Your task to perform on an android device: Show the shopping cart on target.com. Add dell xps to the cart on target.com, then select checkout. Image 0: 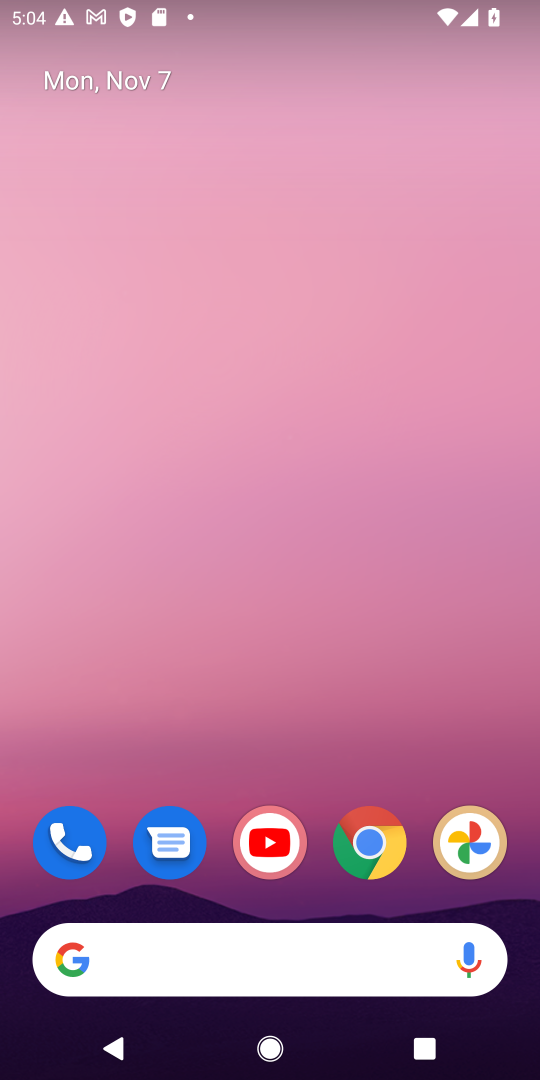
Step 0: drag from (215, 573) to (288, 20)
Your task to perform on an android device: Show the shopping cart on target.com. Add dell xps to the cart on target.com, then select checkout. Image 1: 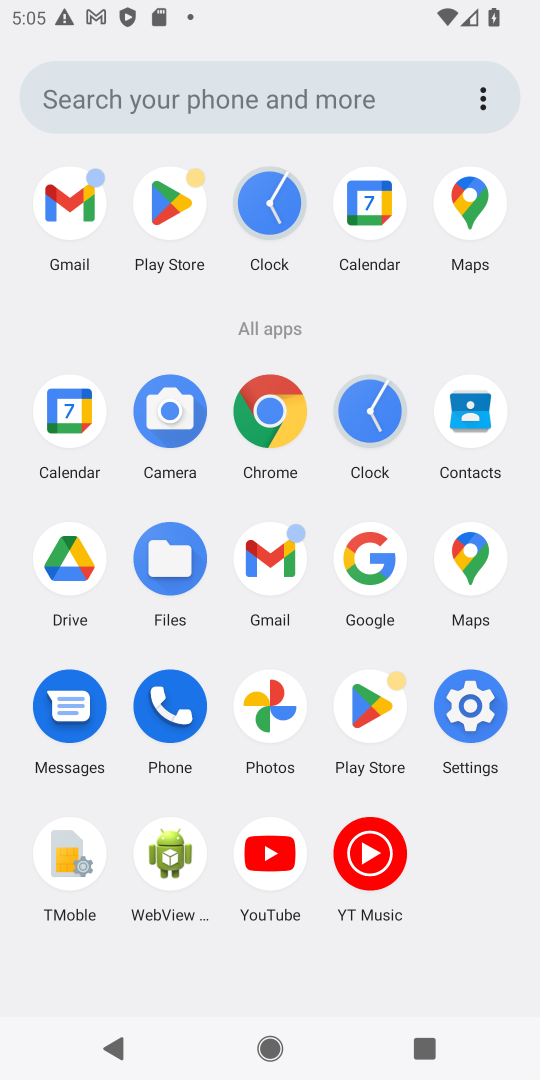
Step 1: click (270, 411)
Your task to perform on an android device: Show the shopping cart on target.com. Add dell xps to the cart on target.com, then select checkout. Image 2: 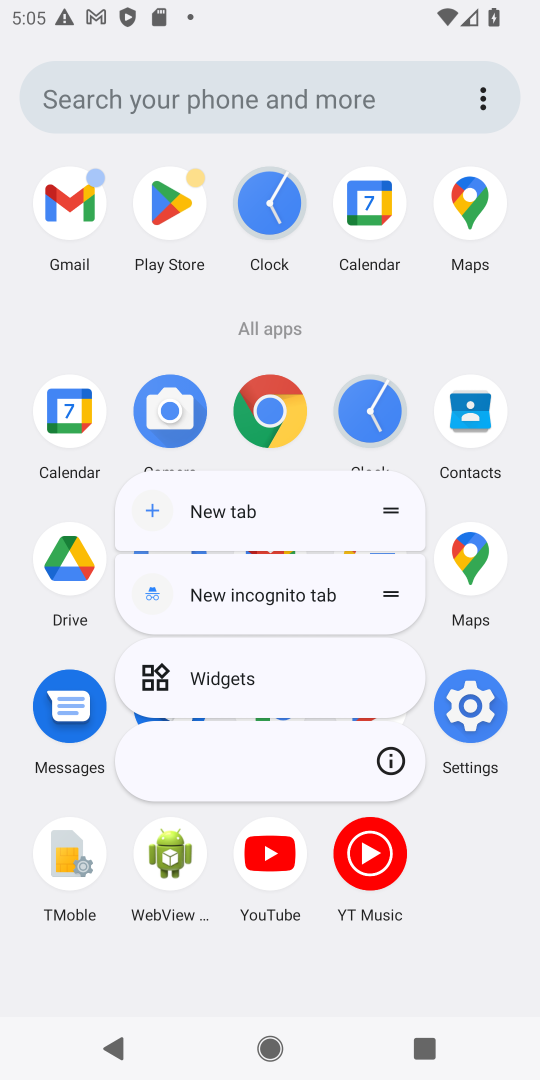
Step 2: click (270, 411)
Your task to perform on an android device: Show the shopping cart on target.com. Add dell xps to the cart on target.com, then select checkout. Image 3: 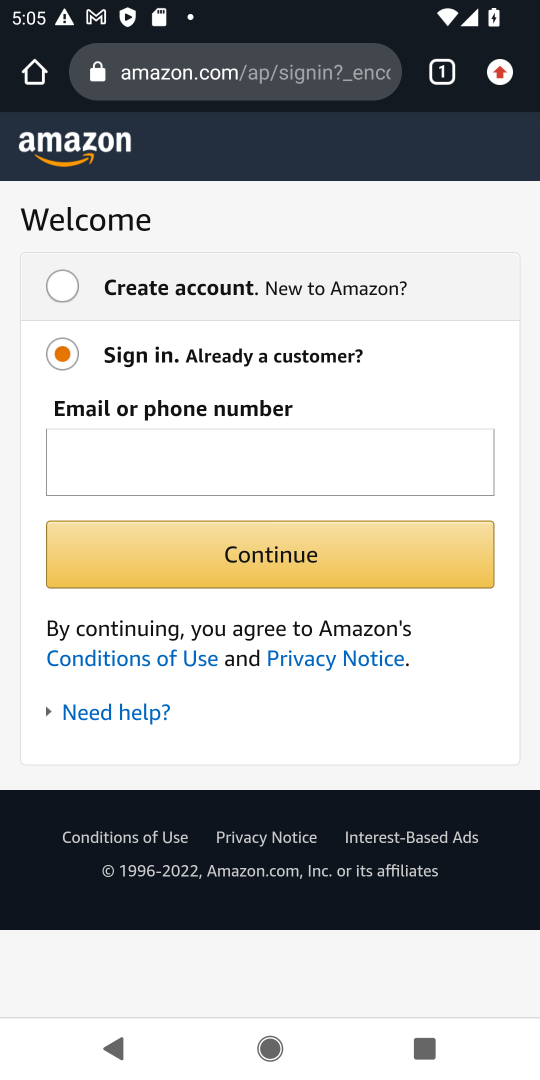
Step 3: click (242, 63)
Your task to perform on an android device: Show the shopping cart on target.com. Add dell xps to the cart on target.com, then select checkout. Image 4: 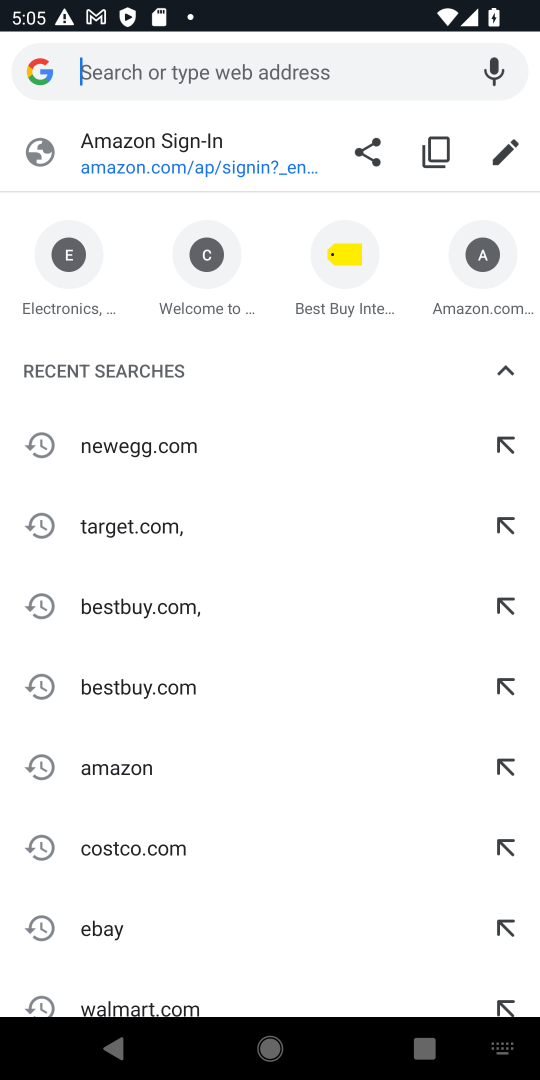
Step 4: type " target.com"
Your task to perform on an android device: Show the shopping cart on target.com. Add dell xps to the cart on target.com, then select checkout. Image 5: 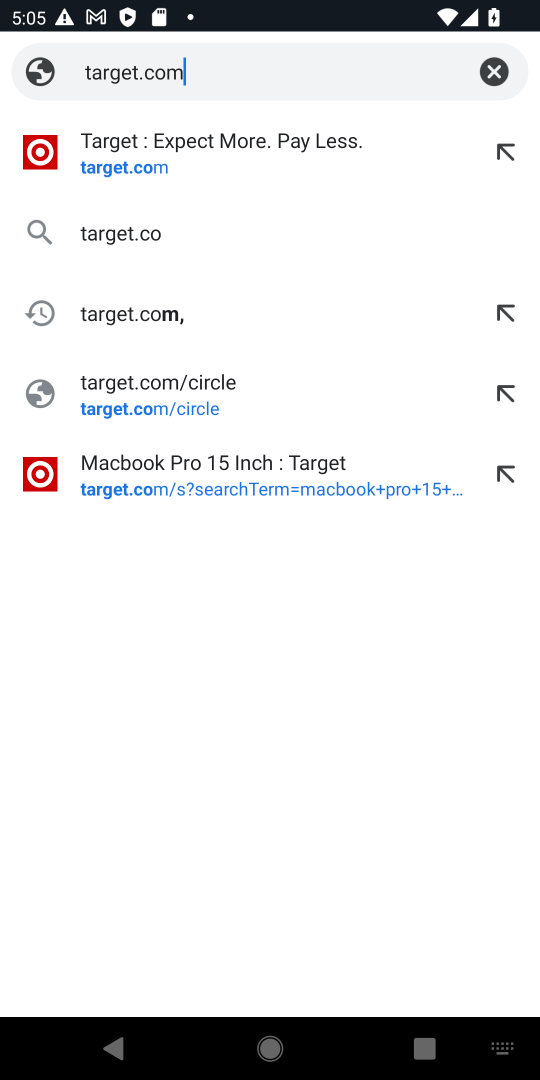
Step 5: press enter
Your task to perform on an android device: Show the shopping cart on target.com. Add dell xps to the cart on target.com, then select checkout. Image 6: 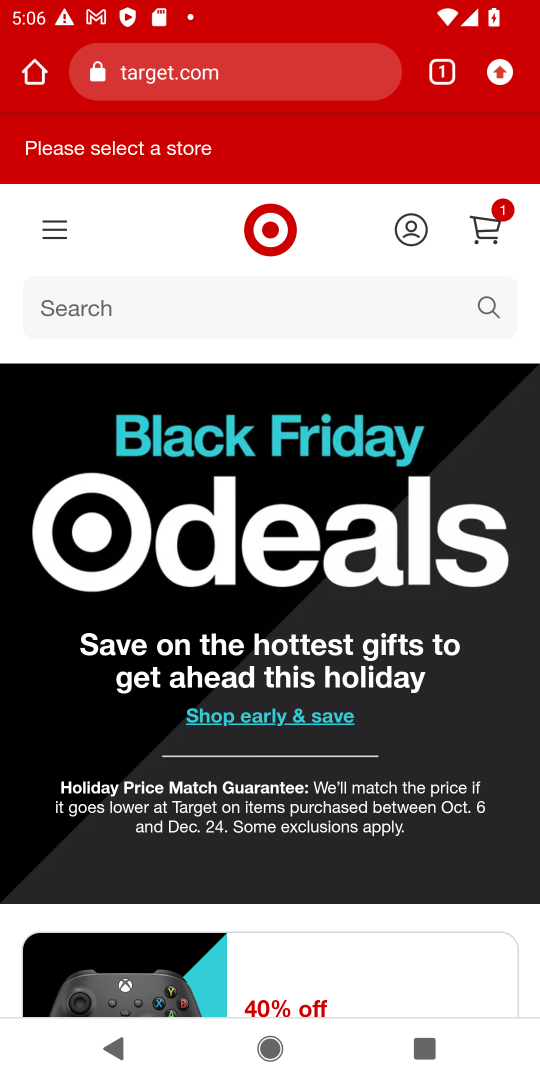
Step 6: drag from (247, 780) to (352, 309)
Your task to perform on an android device: Show the shopping cart on target.com. Add dell xps to the cart on target.com, then select checkout. Image 7: 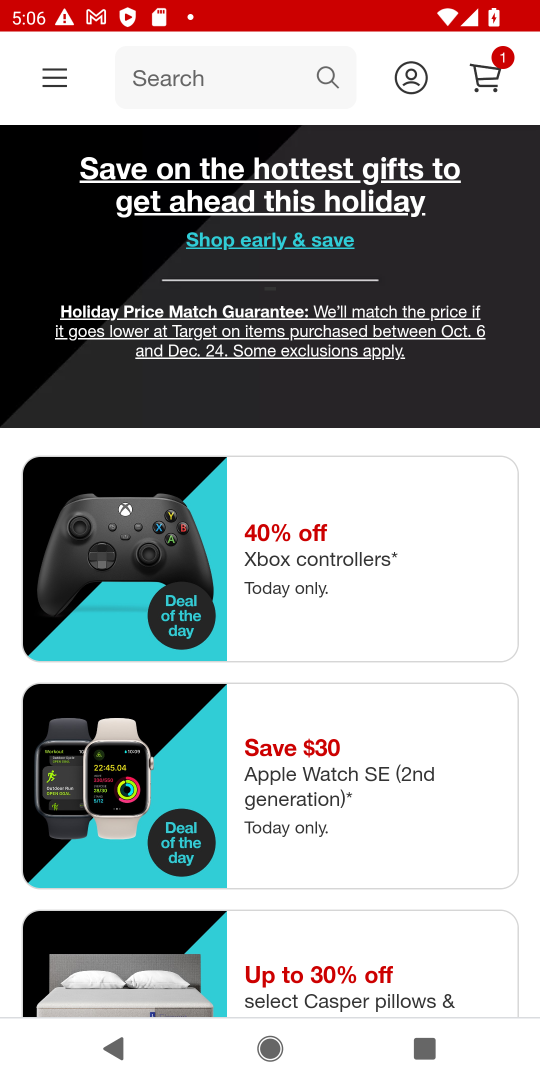
Step 7: click (158, 513)
Your task to perform on an android device: Show the shopping cart on target.com. Add dell xps to the cart on target.com, then select checkout. Image 8: 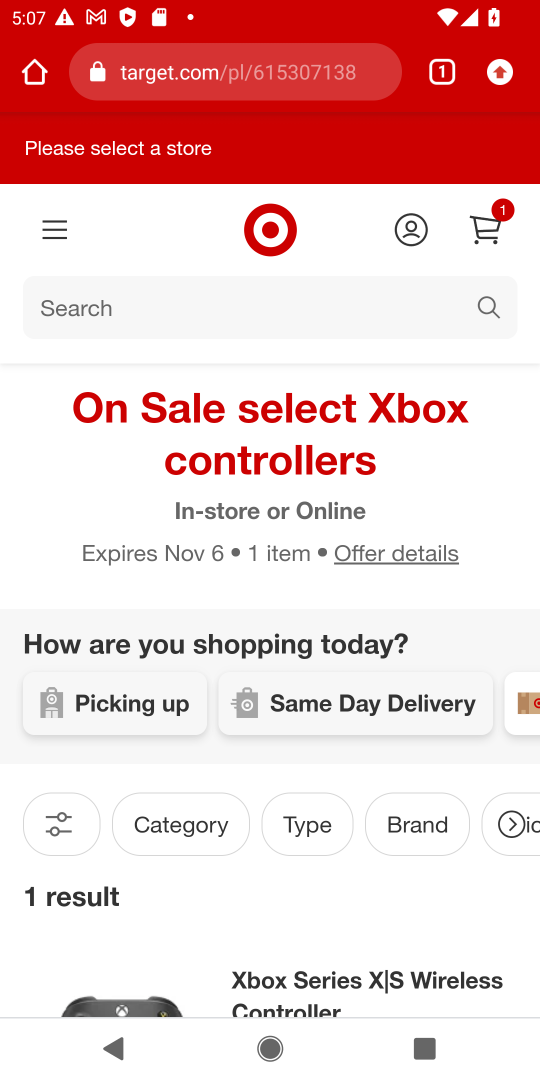
Step 8: click (188, 332)
Your task to perform on an android device: Show the shopping cart on target.com. Add dell xps to the cart on target.com, then select checkout. Image 9: 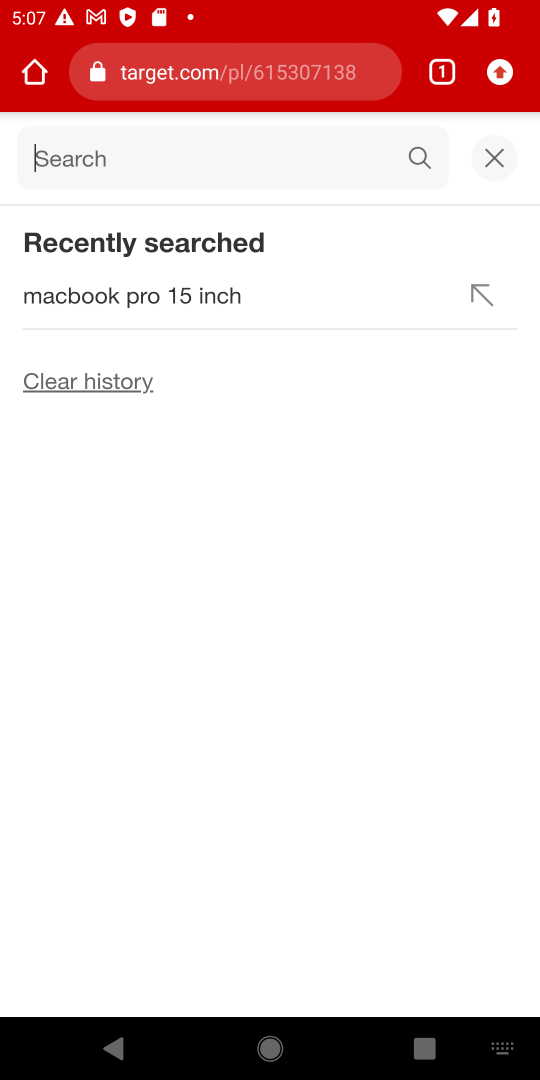
Step 9: type "dell xps"
Your task to perform on an android device: Show the shopping cart on target.com. Add dell xps to the cart on target.com, then select checkout. Image 10: 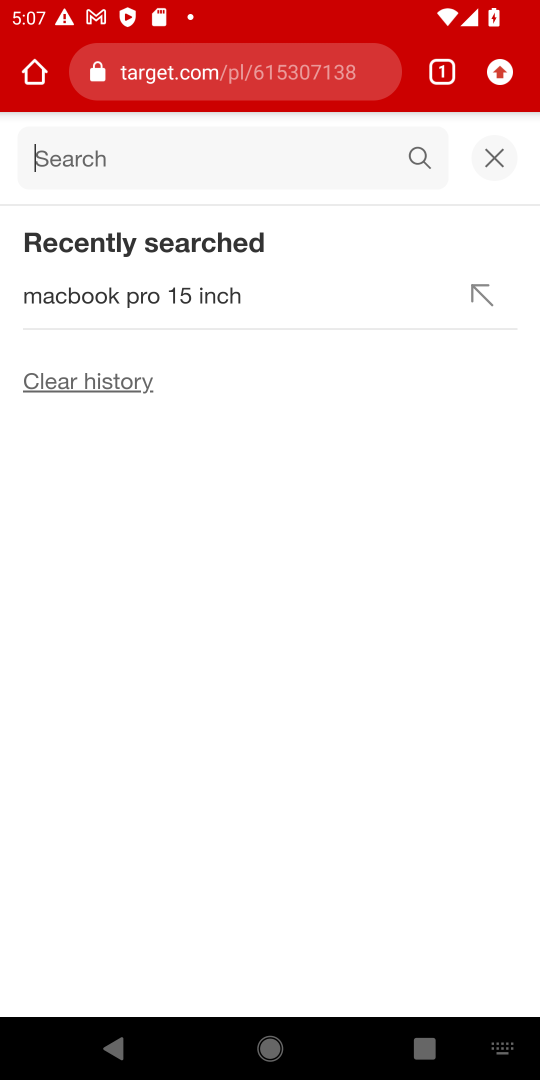
Step 10: press enter
Your task to perform on an android device: Show the shopping cart on target.com. Add dell xps to the cart on target.com, then select checkout. Image 11: 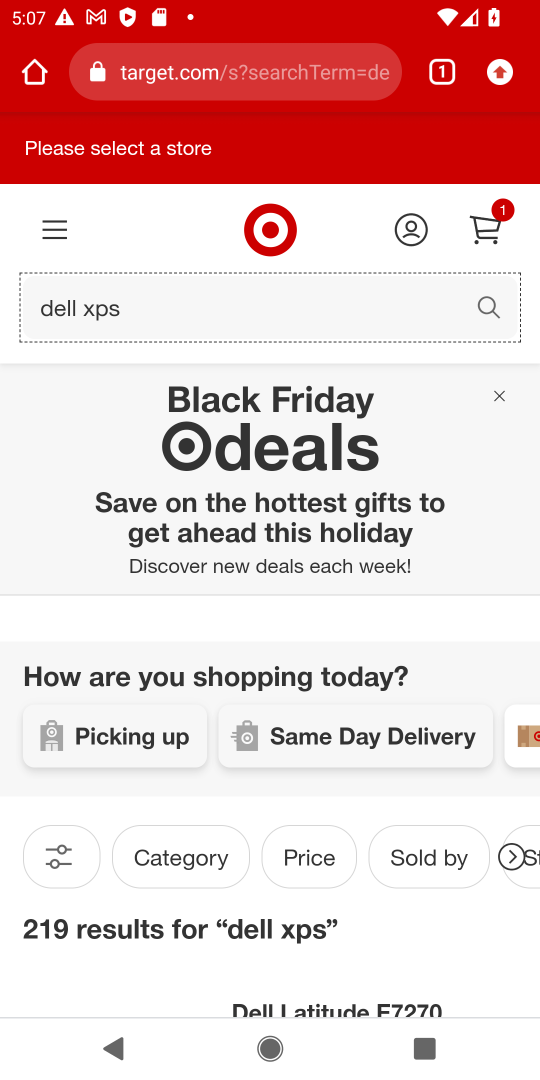
Step 11: drag from (273, 758) to (394, 354)
Your task to perform on an android device: Show the shopping cart on target.com. Add dell xps to the cart on target.com, then select checkout. Image 12: 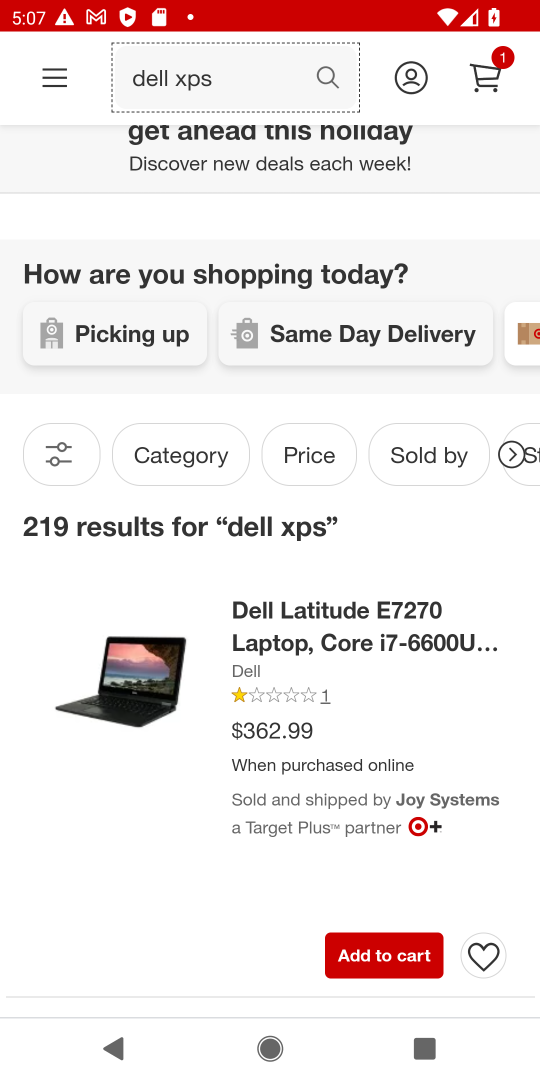
Step 12: click (368, 959)
Your task to perform on an android device: Show the shopping cart on target.com. Add dell xps to the cart on target.com, then select checkout. Image 13: 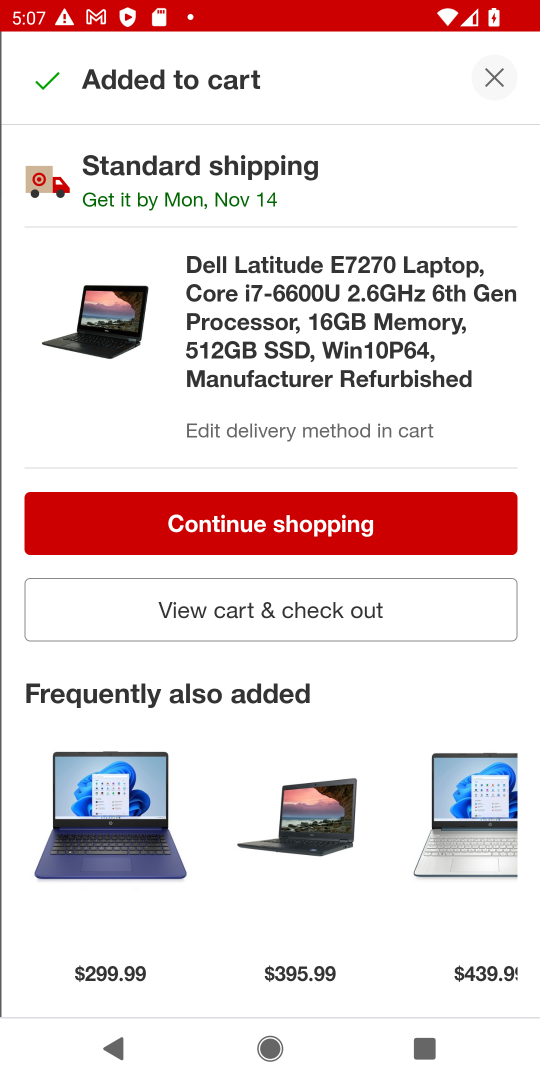
Step 13: click (359, 617)
Your task to perform on an android device: Show the shopping cart on target.com. Add dell xps to the cart on target.com, then select checkout. Image 14: 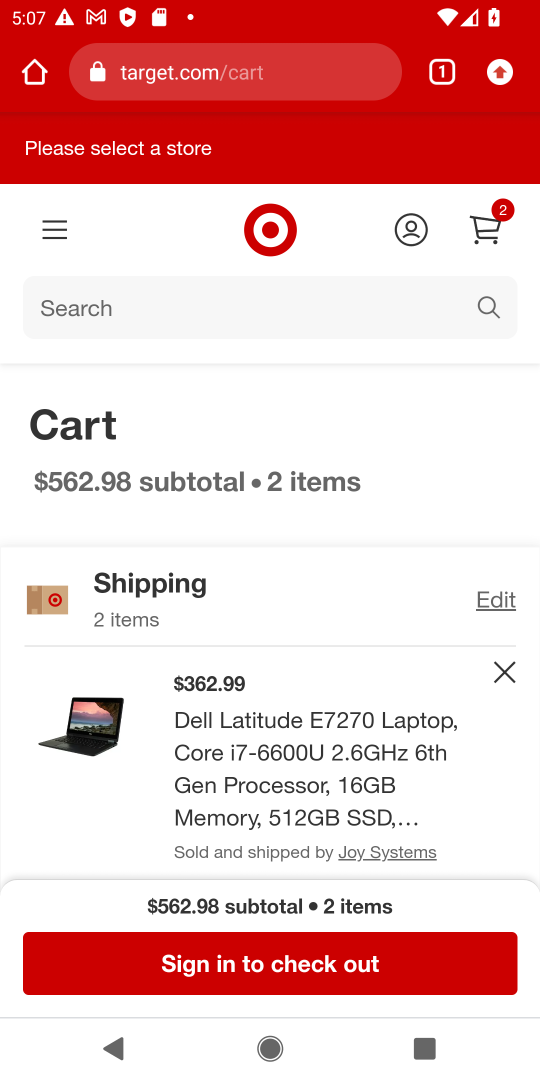
Step 14: task complete